Your task to perform on an android device: open chrome privacy settings Image 0: 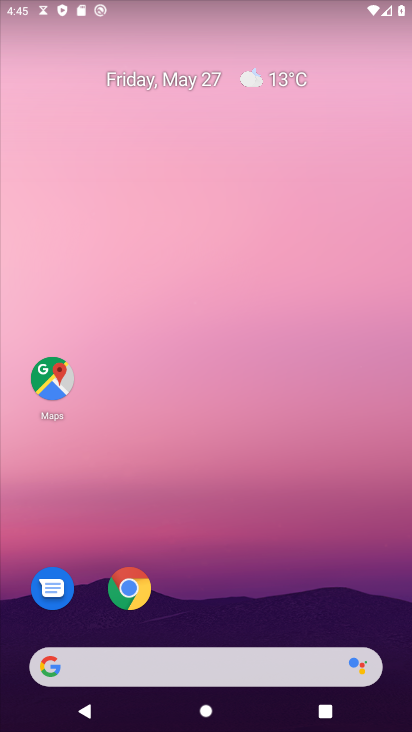
Step 0: click (123, 587)
Your task to perform on an android device: open chrome privacy settings Image 1: 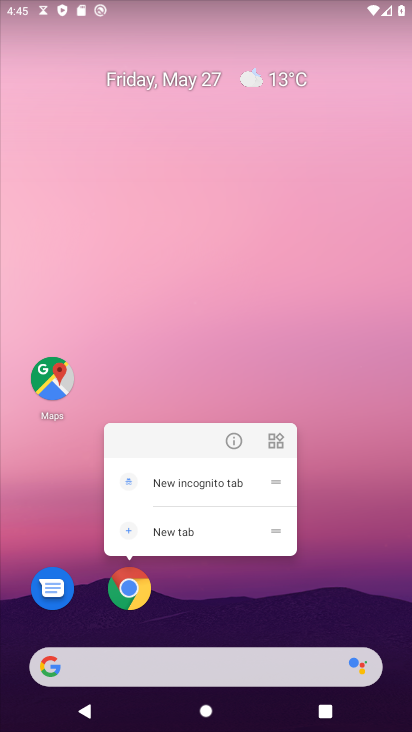
Step 1: click (123, 587)
Your task to perform on an android device: open chrome privacy settings Image 2: 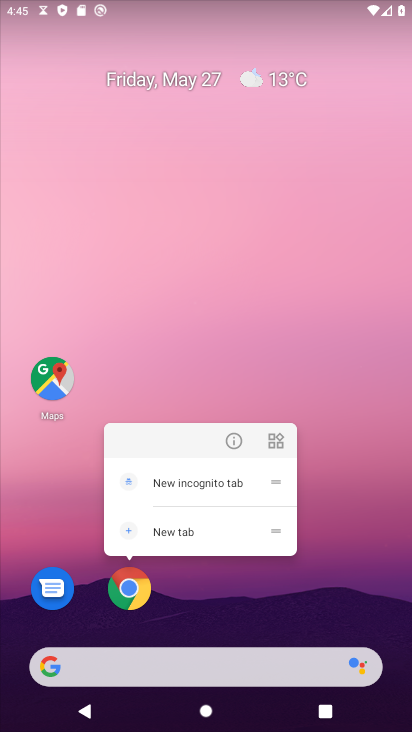
Step 2: click (134, 581)
Your task to perform on an android device: open chrome privacy settings Image 3: 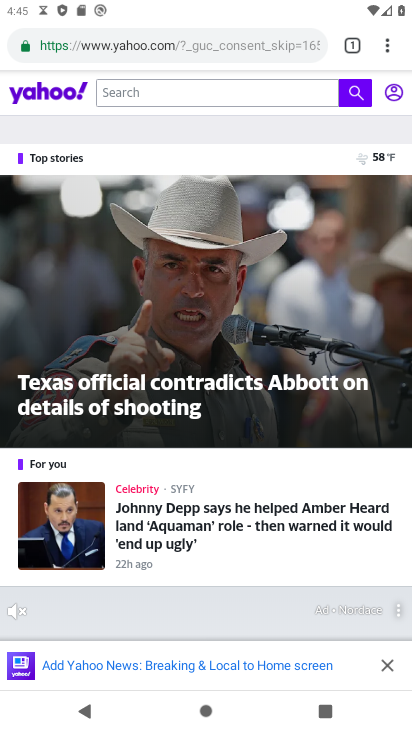
Step 3: drag from (387, 39) to (231, 554)
Your task to perform on an android device: open chrome privacy settings Image 4: 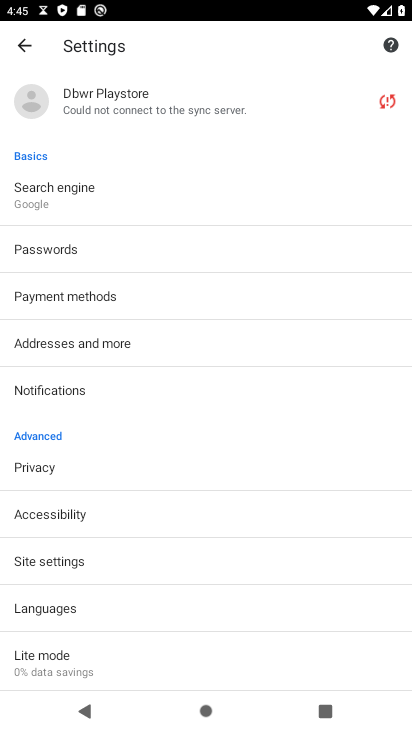
Step 4: click (70, 450)
Your task to perform on an android device: open chrome privacy settings Image 5: 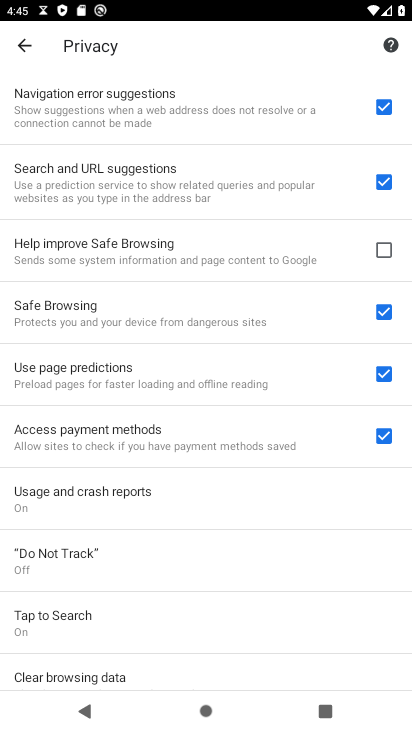
Step 5: task complete